Your task to perform on an android device: install app "Google Maps" Image 0: 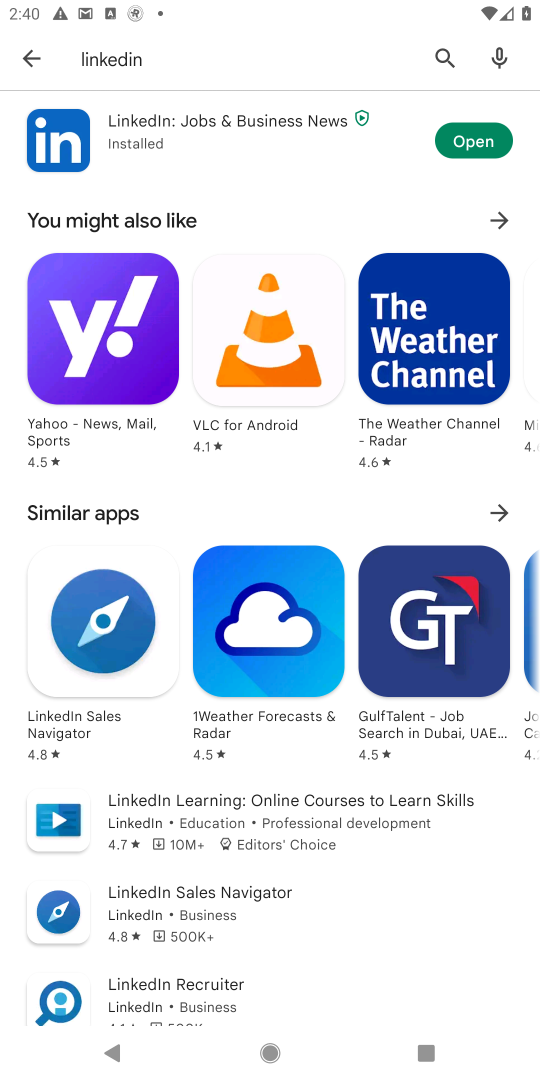
Step 0: click (440, 53)
Your task to perform on an android device: install app "Google Maps" Image 1: 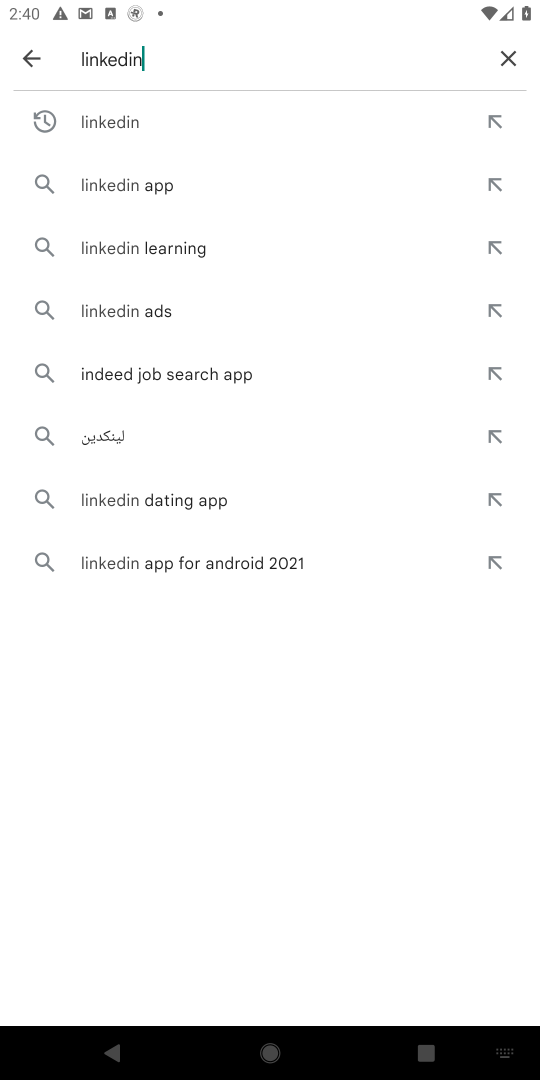
Step 1: click (511, 53)
Your task to perform on an android device: install app "Google Maps" Image 2: 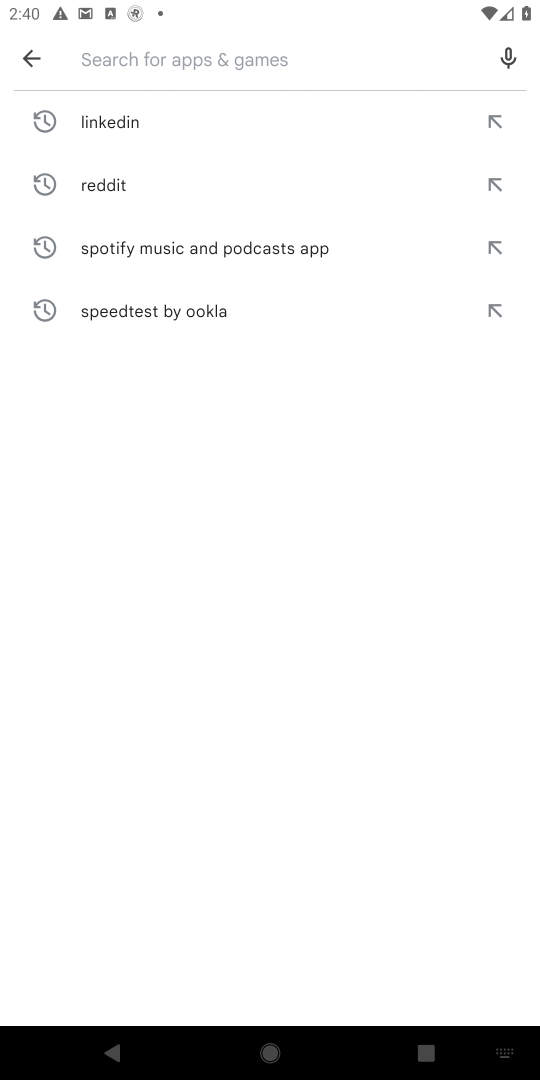
Step 2: type "Google Maps"
Your task to perform on an android device: install app "Google Maps" Image 3: 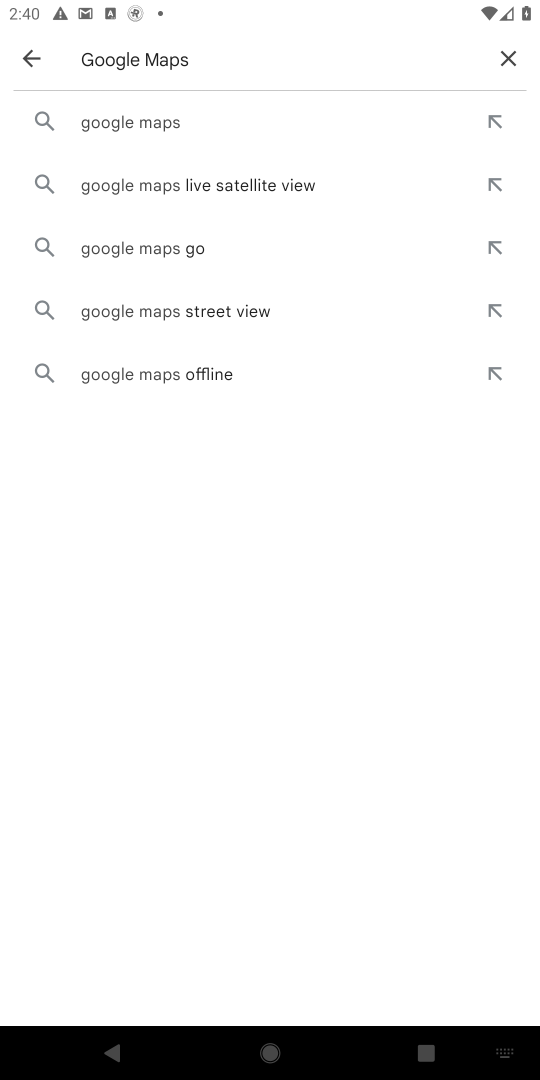
Step 3: click (153, 125)
Your task to perform on an android device: install app "Google Maps" Image 4: 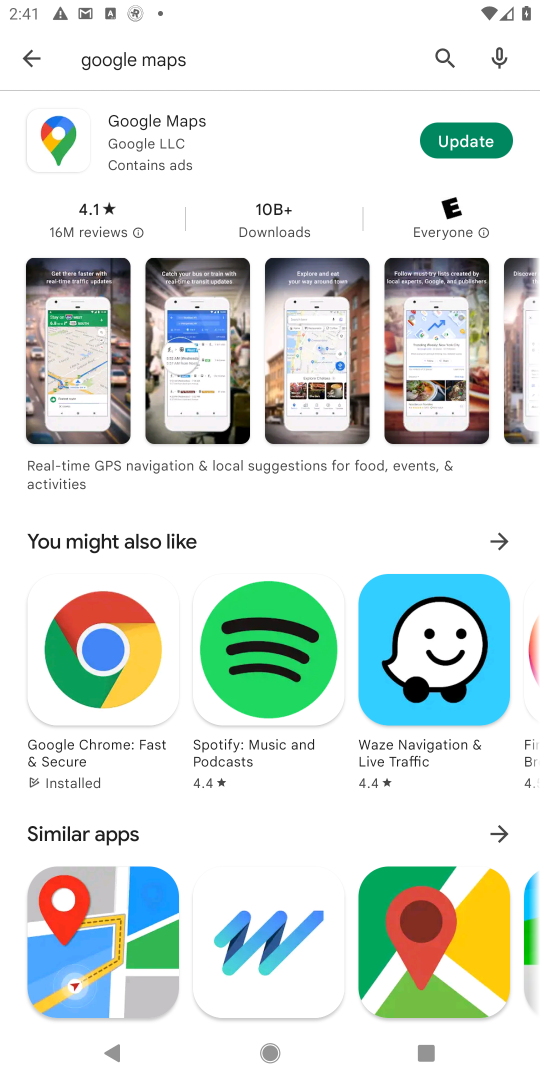
Step 4: click (133, 130)
Your task to perform on an android device: install app "Google Maps" Image 5: 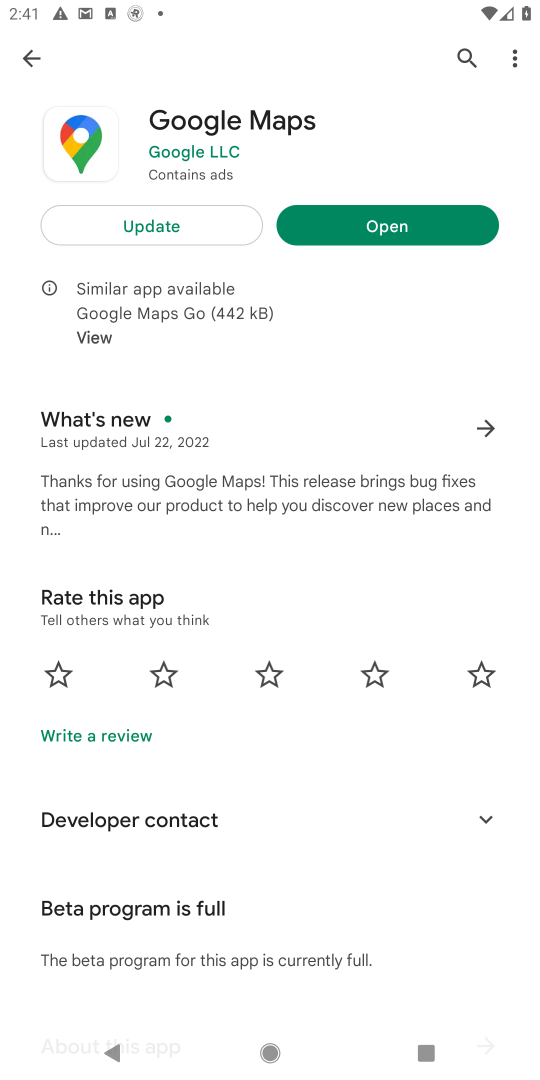
Step 5: task complete